Your task to perform on an android device: empty trash in google photos Image 0: 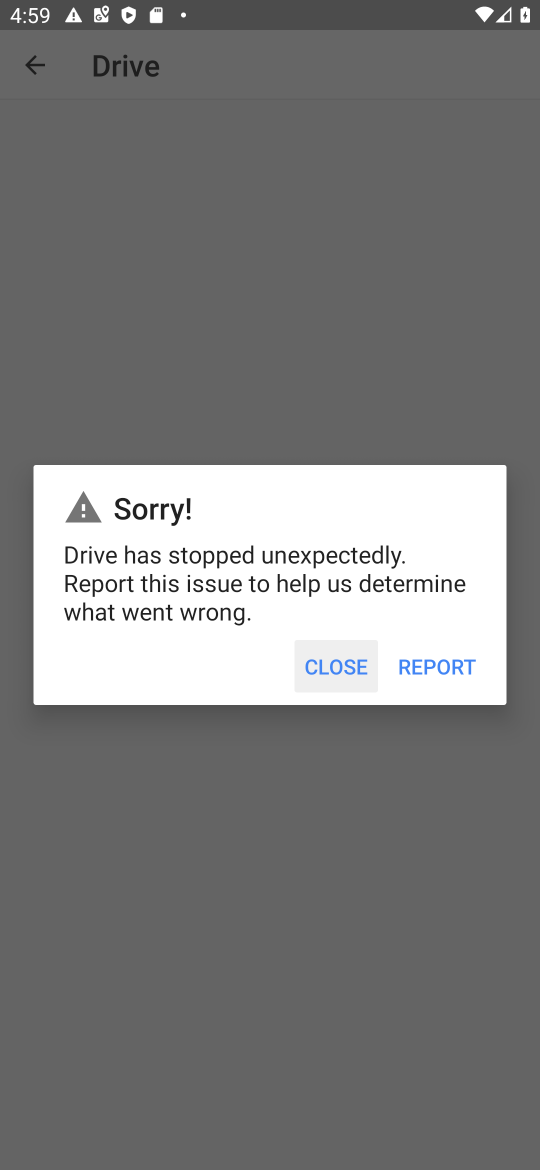
Step 0: click (351, 652)
Your task to perform on an android device: empty trash in google photos Image 1: 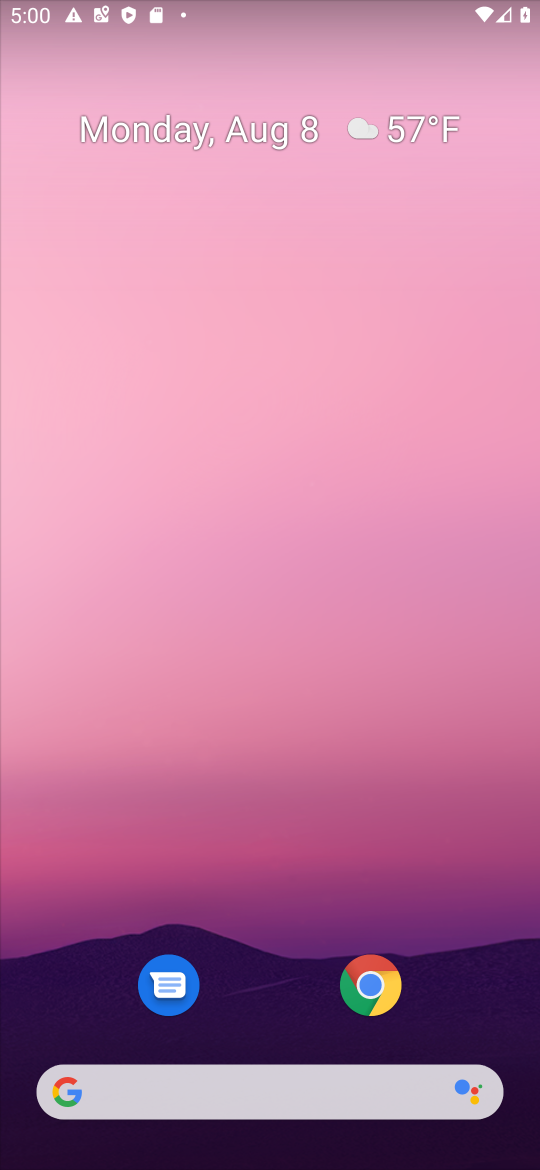
Step 1: drag from (284, 922) to (334, 256)
Your task to perform on an android device: empty trash in google photos Image 2: 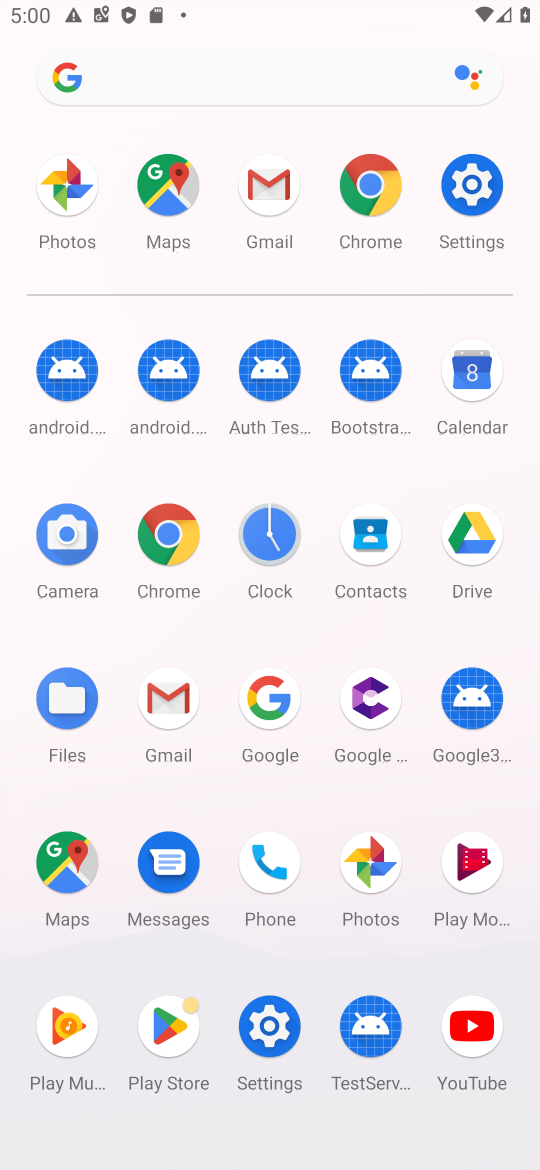
Step 2: click (368, 854)
Your task to perform on an android device: empty trash in google photos Image 3: 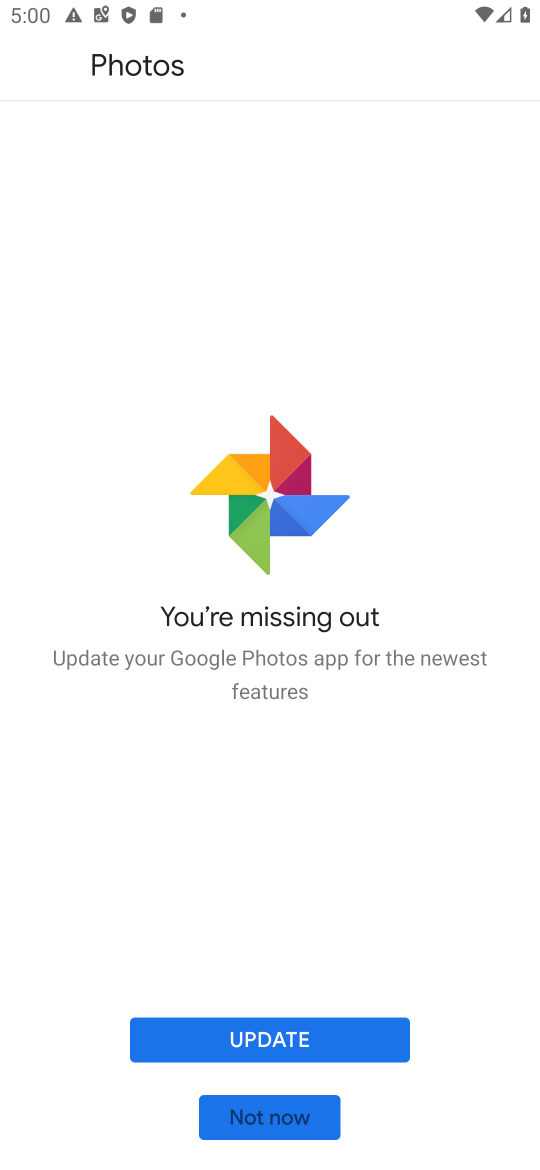
Step 3: click (260, 1102)
Your task to perform on an android device: empty trash in google photos Image 4: 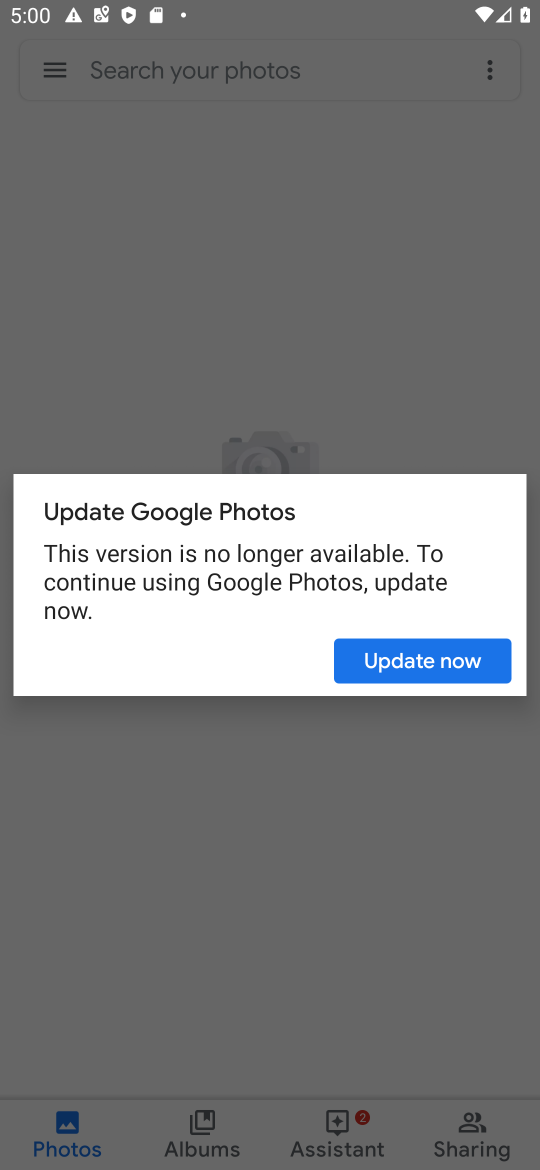
Step 4: press home button
Your task to perform on an android device: empty trash in google photos Image 5: 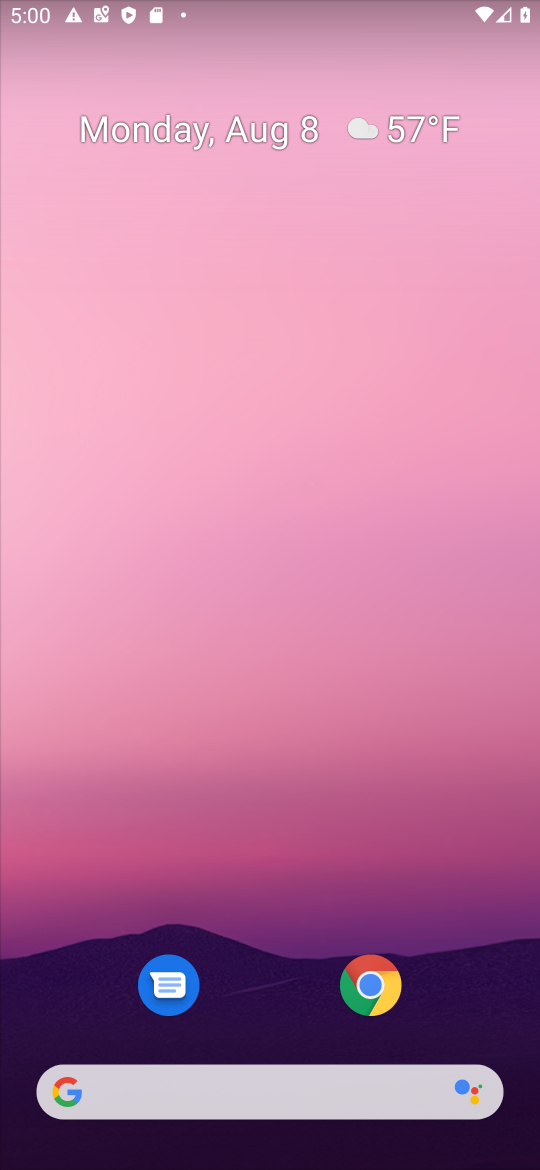
Step 5: drag from (290, 793) to (262, 180)
Your task to perform on an android device: empty trash in google photos Image 6: 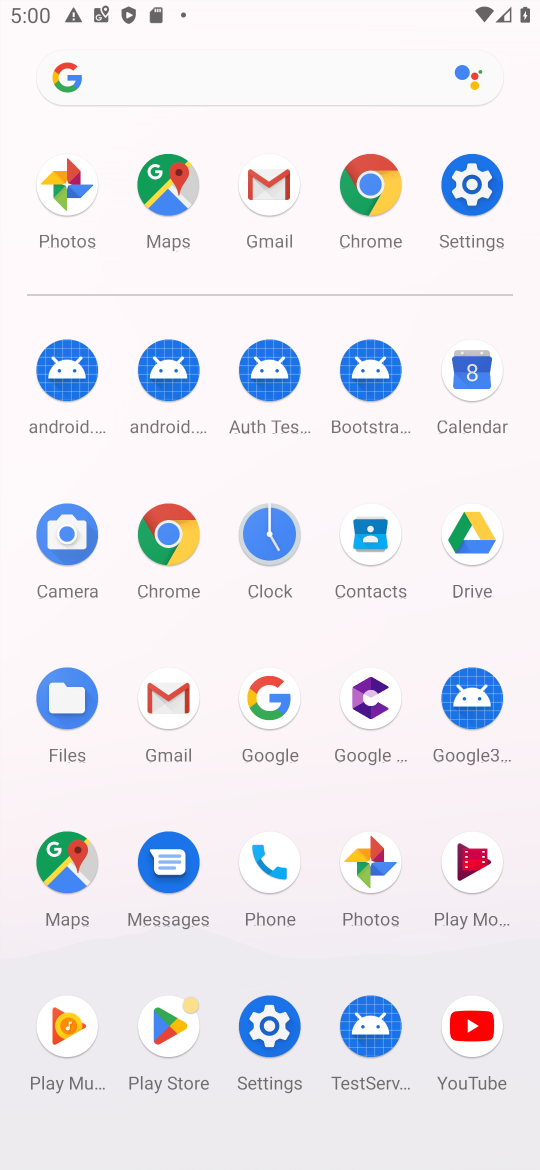
Step 6: click (361, 875)
Your task to perform on an android device: empty trash in google photos Image 7: 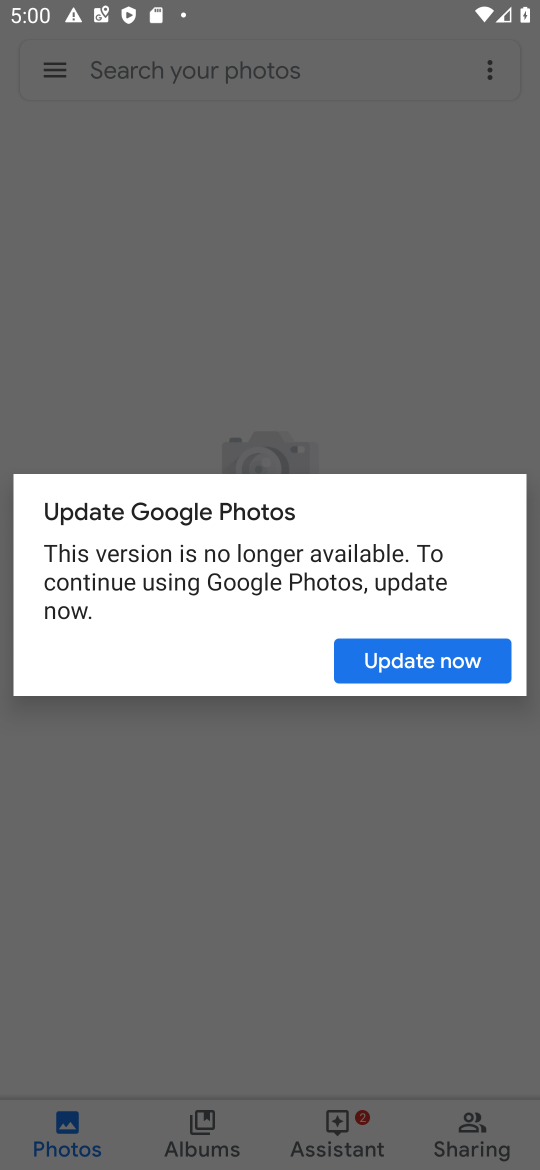
Step 7: click (343, 842)
Your task to perform on an android device: empty trash in google photos Image 8: 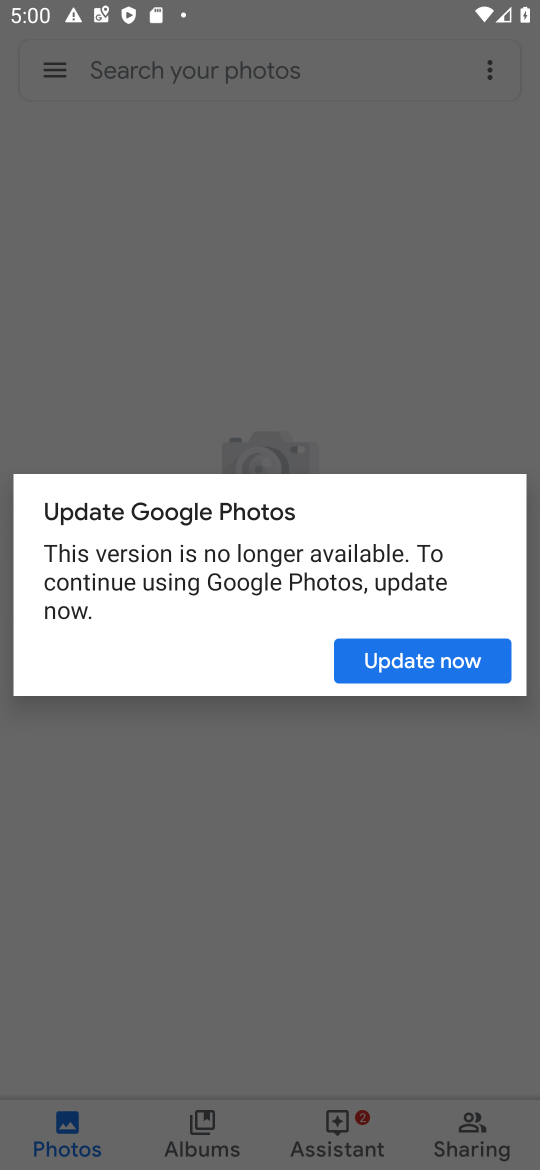
Step 8: click (409, 672)
Your task to perform on an android device: empty trash in google photos Image 9: 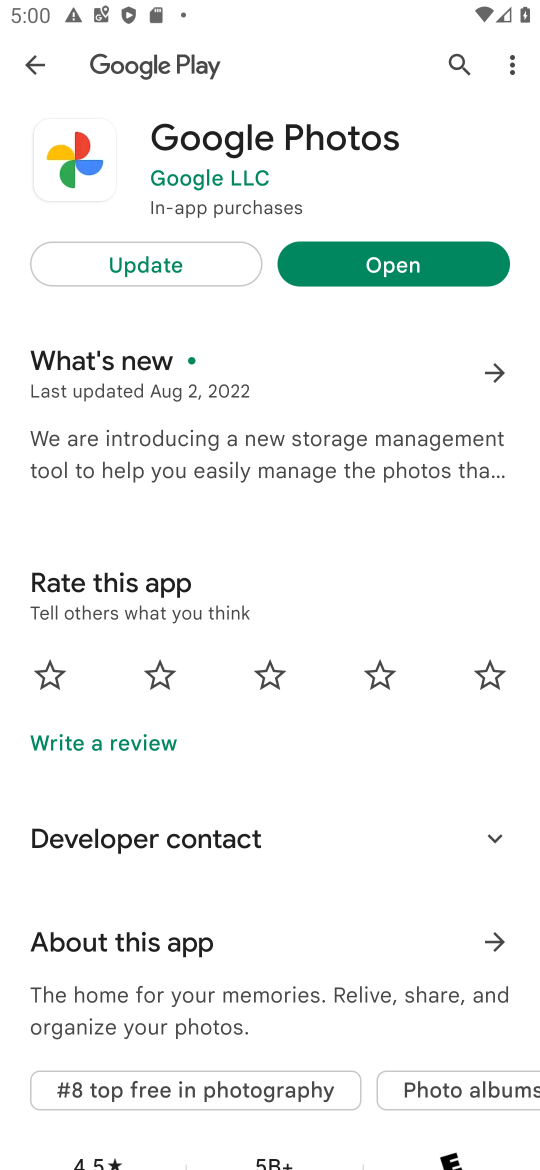
Step 9: press home button
Your task to perform on an android device: empty trash in google photos Image 10: 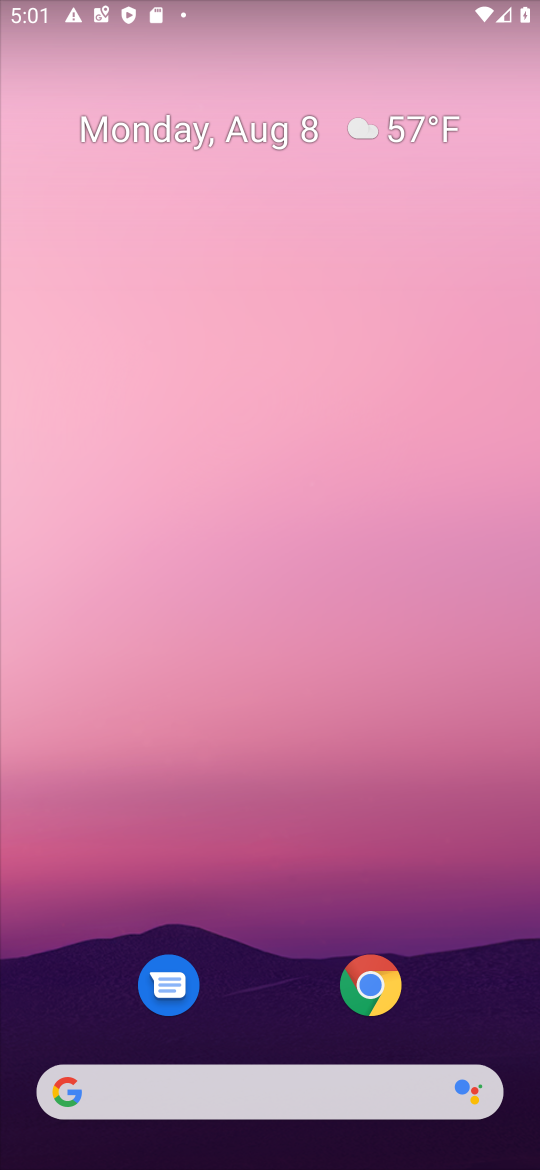
Step 10: drag from (289, 903) to (340, 244)
Your task to perform on an android device: empty trash in google photos Image 11: 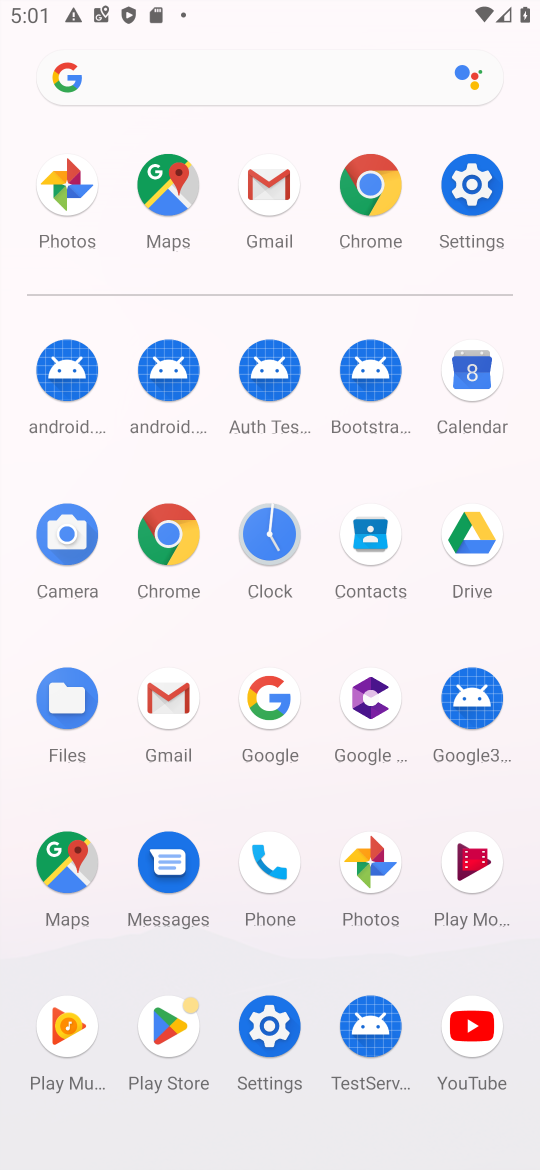
Step 11: click (371, 861)
Your task to perform on an android device: empty trash in google photos Image 12: 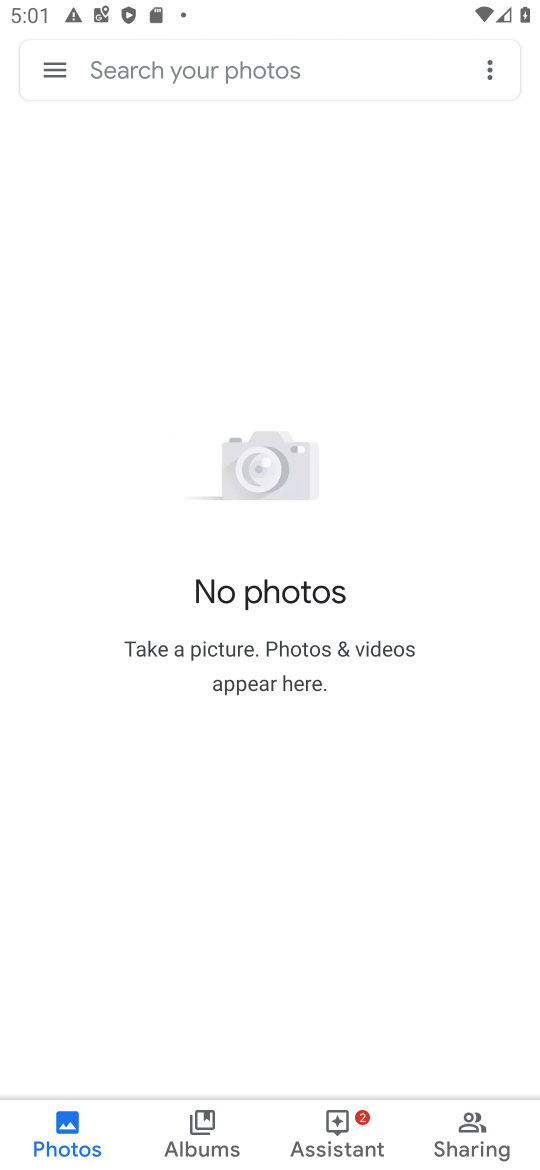
Step 12: click (200, 1131)
Your task to perform on an android device: empty trash in google photos Image 13: 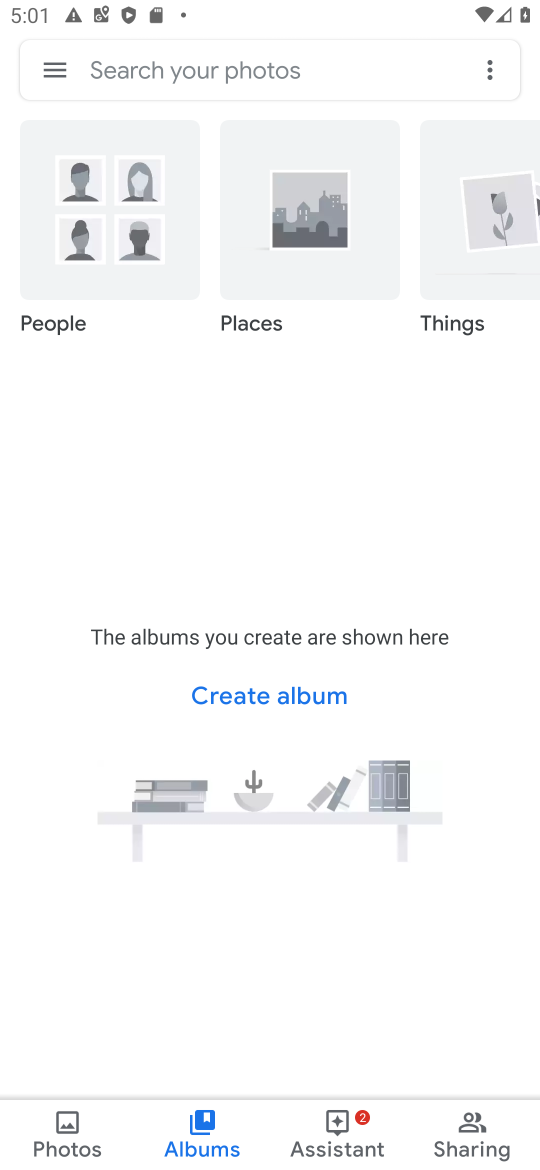
Step 13: task complete